Your task to perform on an android device: What's the US dollar exchange rate against the Canadian Dollar? Image 0: 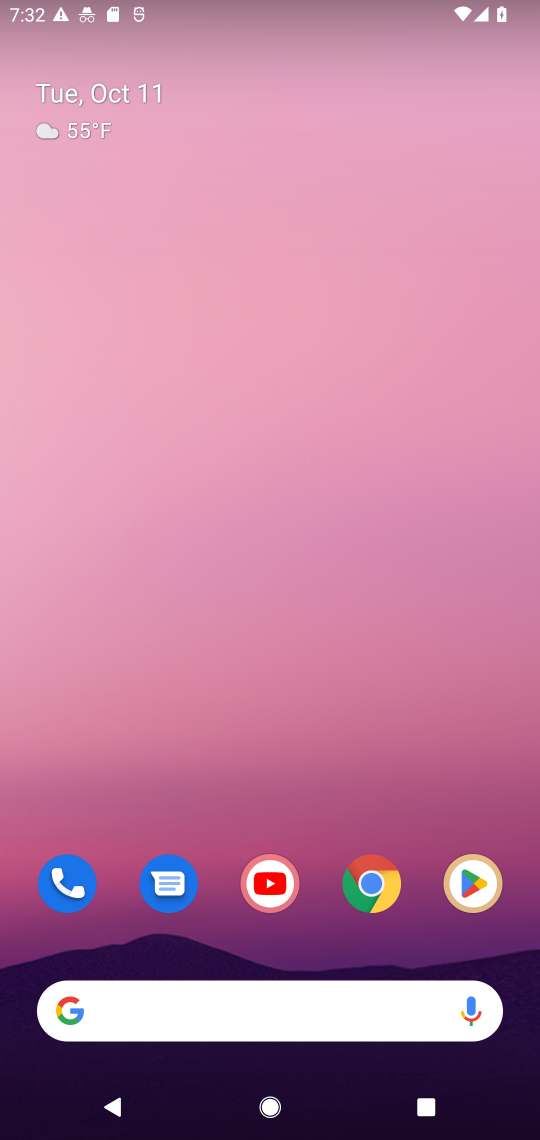
Step 0: drag from (341, 946) to (298, 16)
Your task to perform on an android device: What's the US dollar exchange rate against the Canadian Dollar? Image 1: 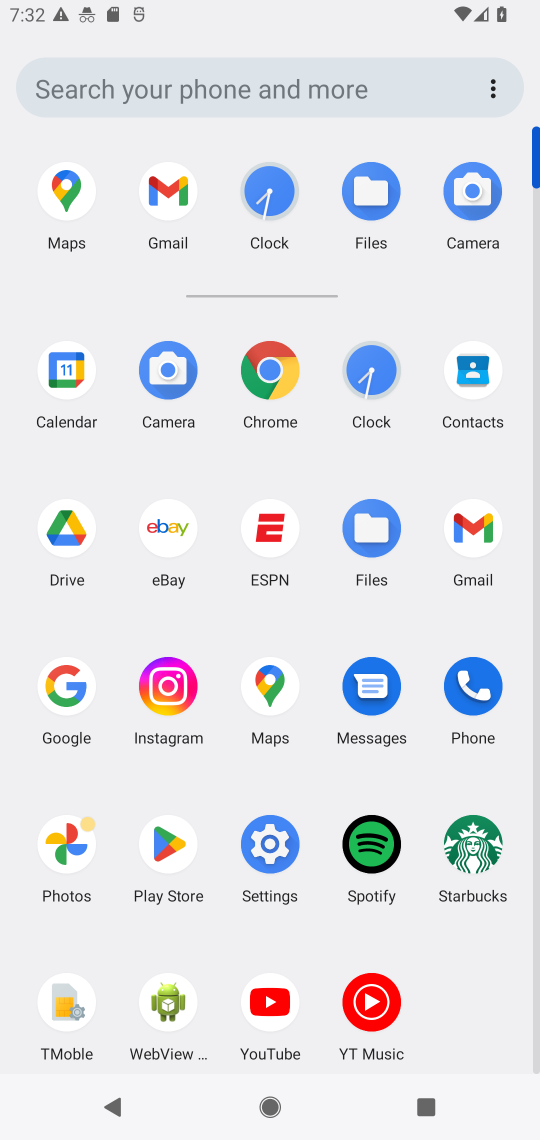
Step 1: click (271, 376)
Your task to perform on an android device: What's the US dollar exchange rate against the Canadian Dollar? Image 2: 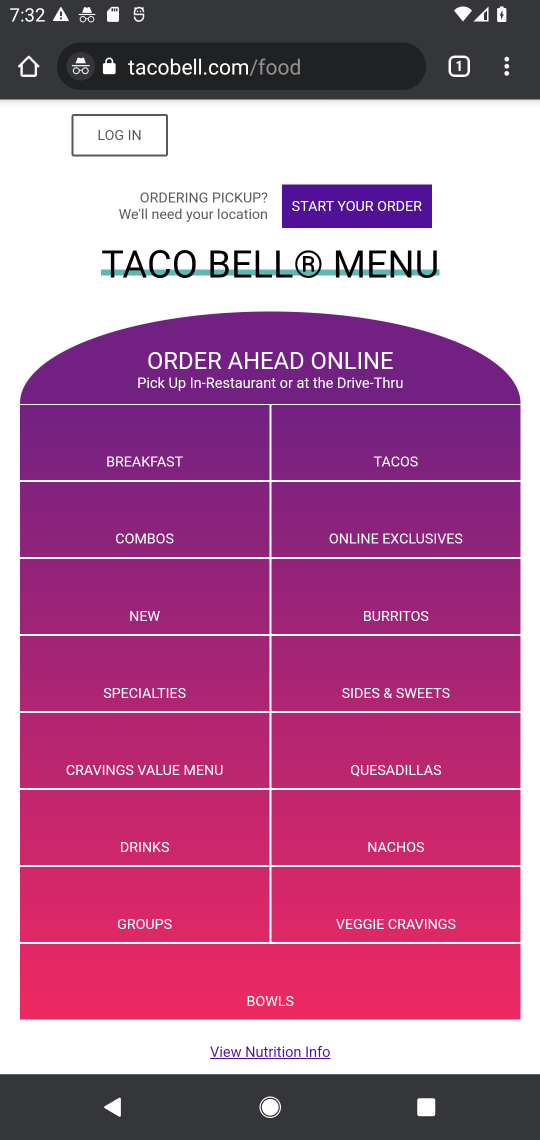
Step 2: click (242, 79)
Your task to perform on an android device: What's the US dollar exchange rate against the Canadian Dollar? Image 3: 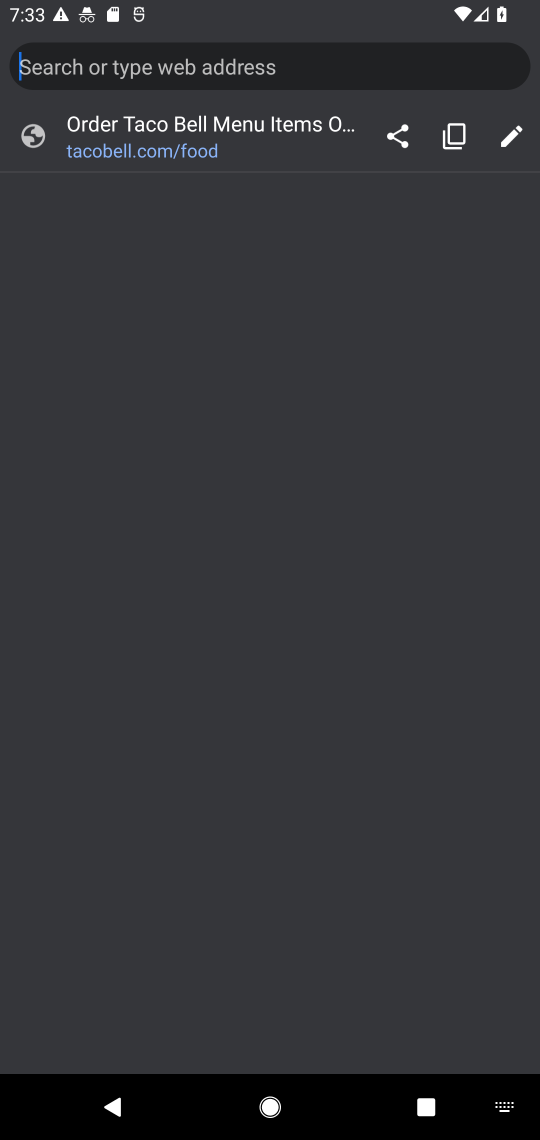
Step 3: type "What's the US dollar exchange rate against the Canadian Dollar?"
Your task to perform on an android device: What's the US dollar exchange rate against the Canadian Dollar? Image 4: 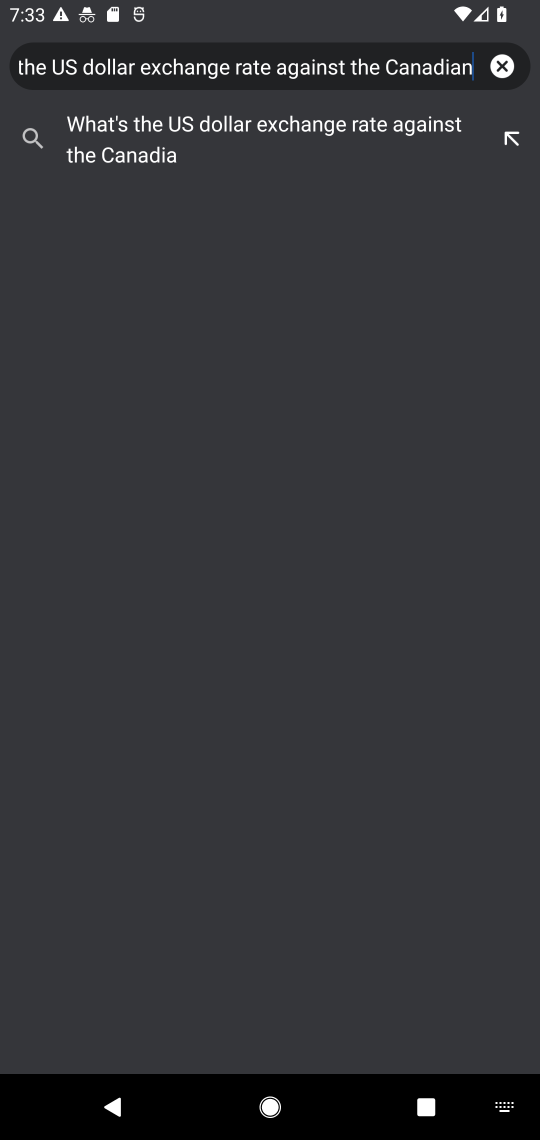
Step 4: press enter
Your task to perform on an android device: What's the US dollar exchange rate against the Canadian Dollar? Image 5: 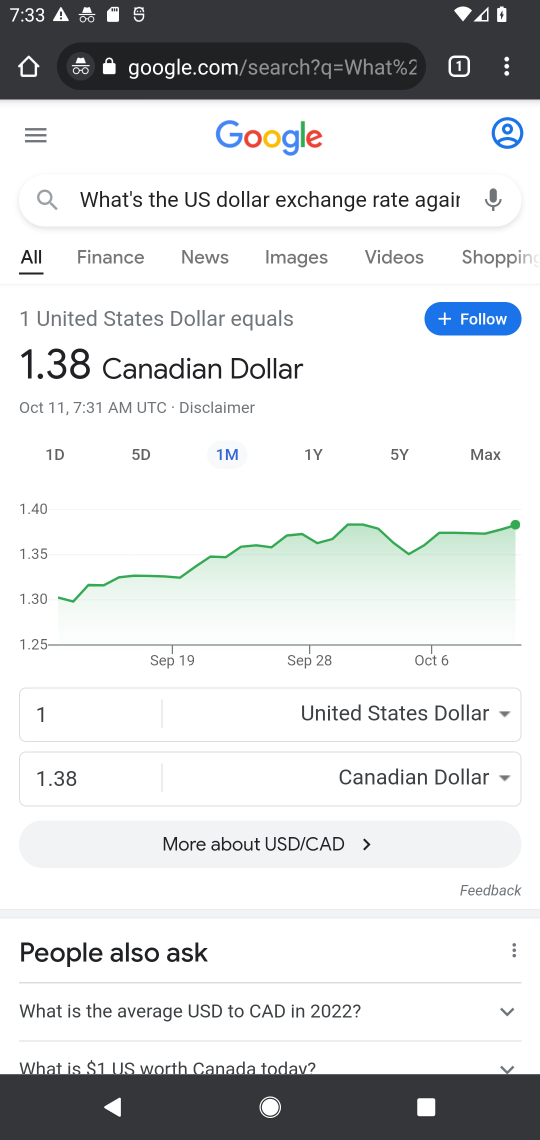
Step 5: task complete